Your task to perform on an android device: Open ESPN.com Image 0: 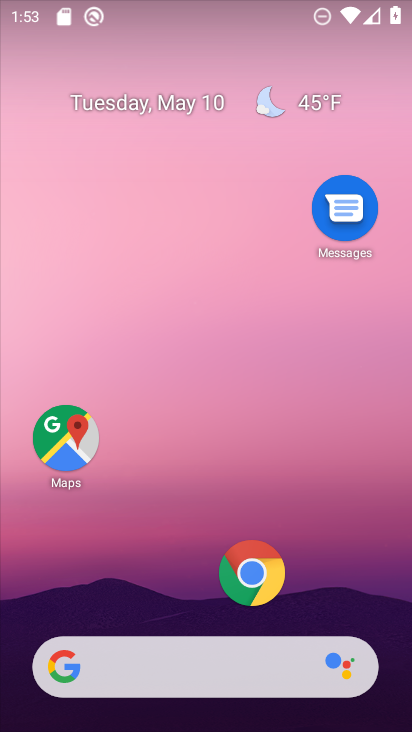
Step 0: drag from (231, 385) to (264, 13)
Your task to perform on an android device: Open ESPN.com Image 1: 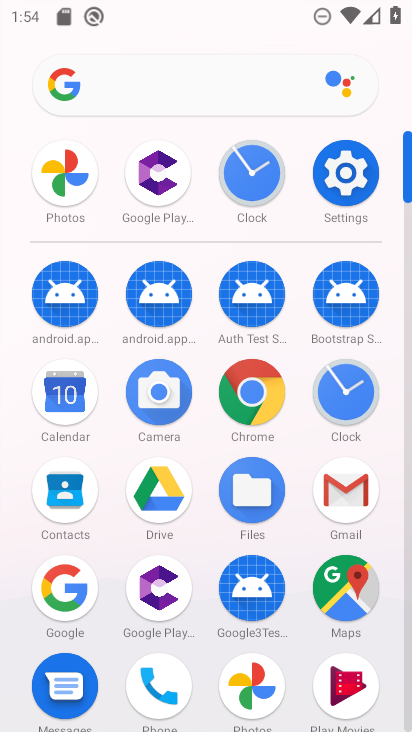
Step 1: click (223, 78)
Your task to perform on an android device: Open ESPN.com Image 2: 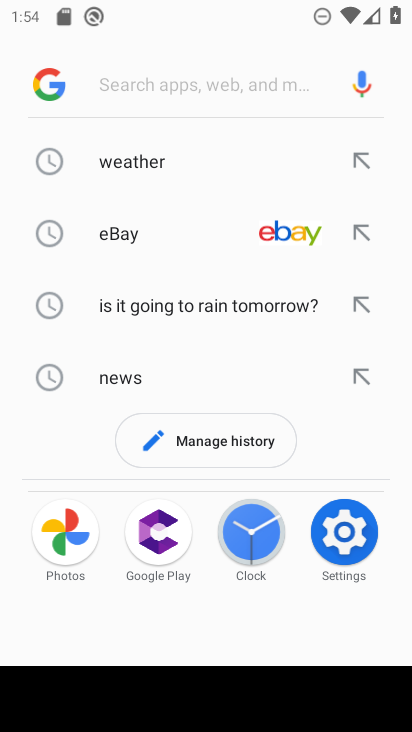
Step 2: type "espn.com"
Your task to perform on an android device: Open ESPN.com Image 3: 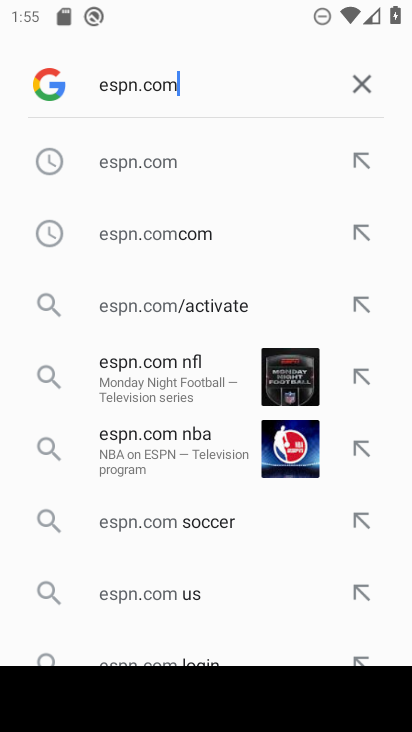
Step 3: click (197, 175)
Your task to perform on an android device: Open ESPN.com Image 4: 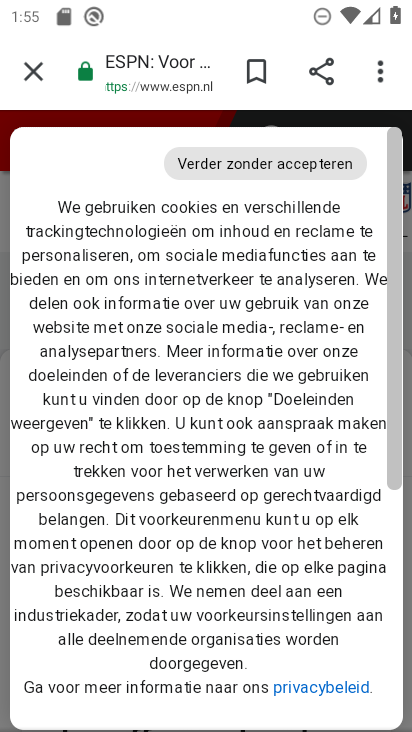
Step 4: task complete